Your task to perform on an android device: Toggle the flashlight Image 0: 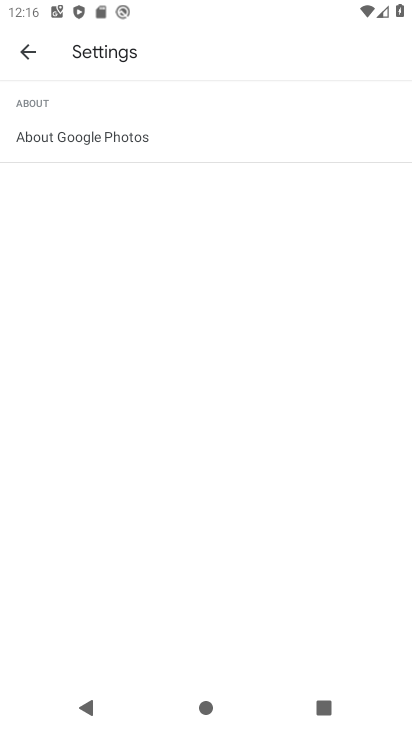
Step 0: drag from (326, 2) to (276, 584)
Your task to perform on an android device: Toggle the flashlight Image 1: 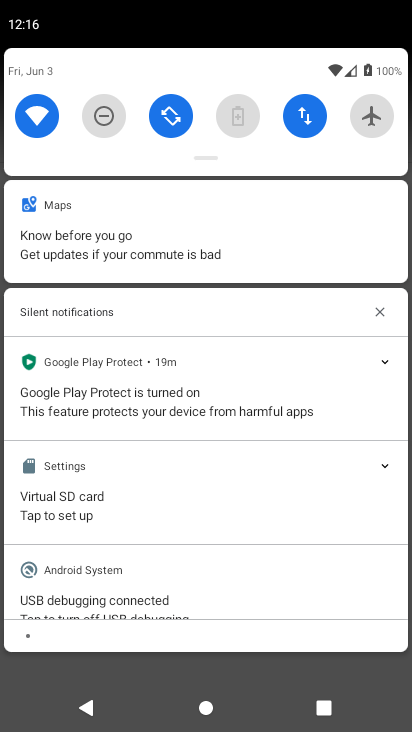
Step 1: drag from (248, 147) to (238, 528)
Your task to perform on an android device: Toggle the flashlight Image 2: 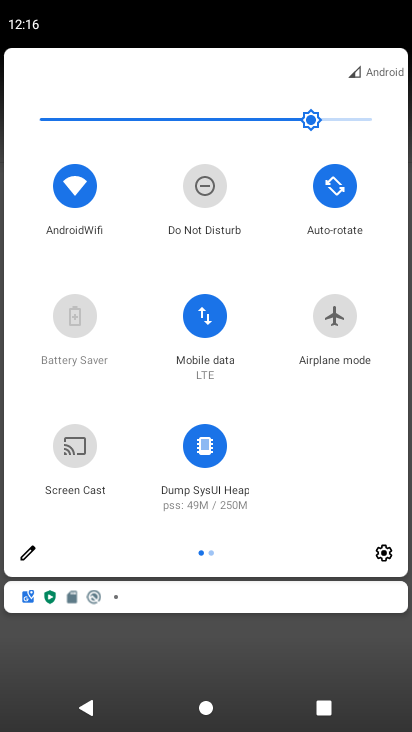
Step 2: click (346, 434)
Your task to perform on an android device: Toggle the flashlight Image 3: 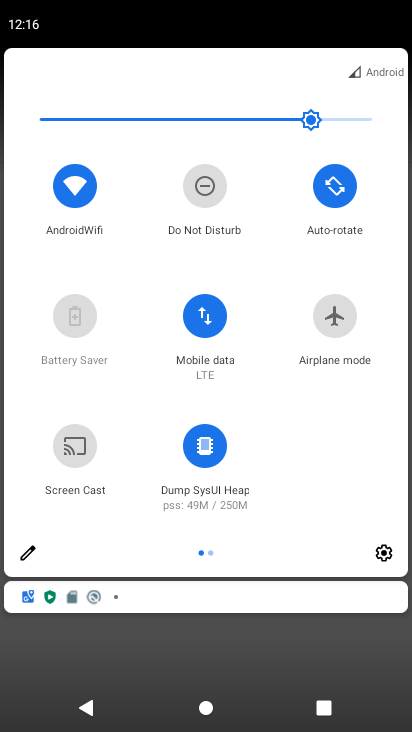
Step 3: click (21, 558)
Your task to perform on an android device: Toggle the flashlight Image 4: 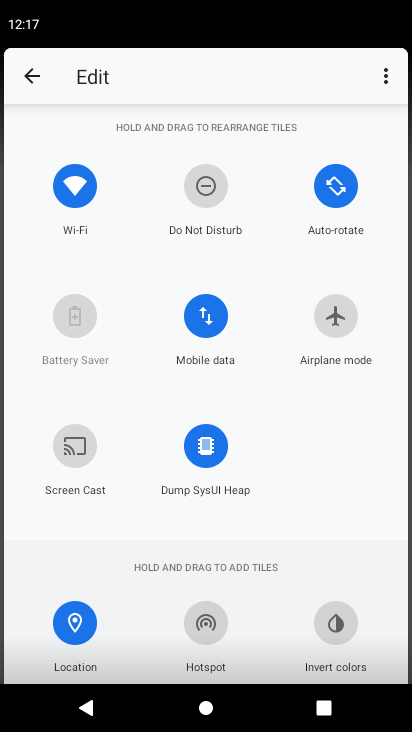
Step 4: drag from (333, 576) to (350, 297)
Your task to perform on an android device: Toggle the flashlight Image 5: 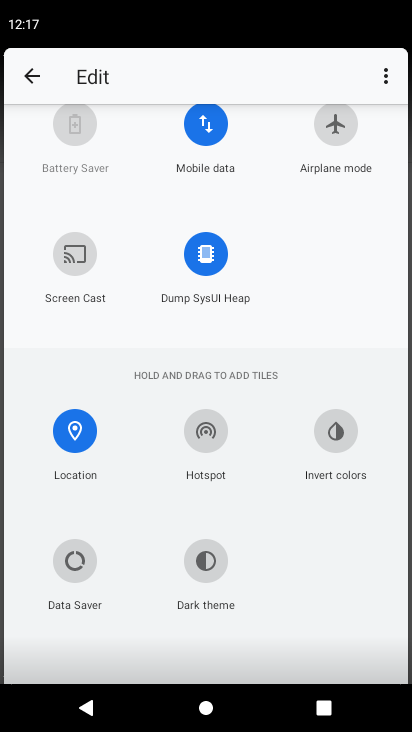
Step 5: click (350, 297)
Your task to perform on an android device: Toggle the flashlight Image 6: 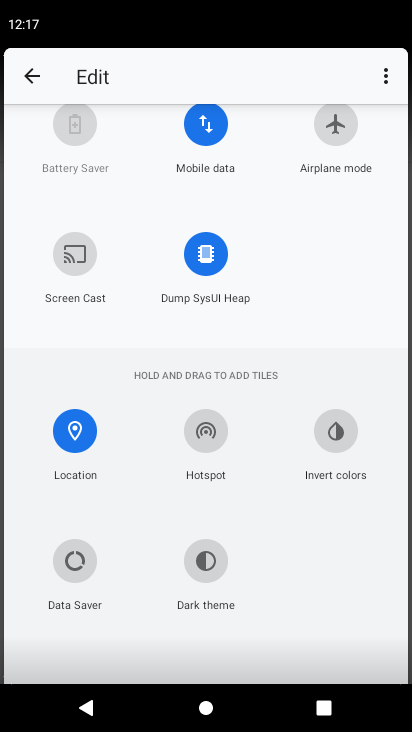
Step 6: task complete